Your task to perform on an android device: Open location settings Image 0: 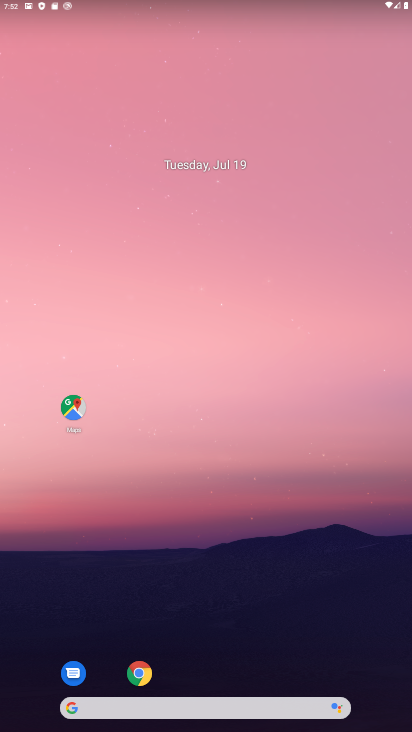
Step 0: click (214, 472)
Your task to perform on an android device: Open location settings Image 1: 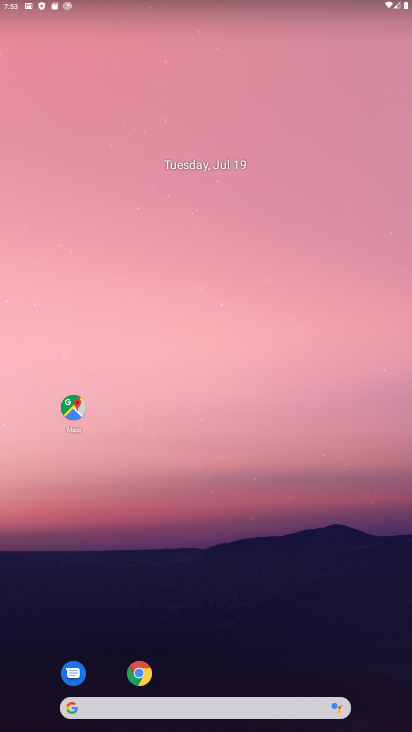
Step 1: drag from (283, 348) to (301, 255)
Your task to perform on an android device: Open location settings Image 2: 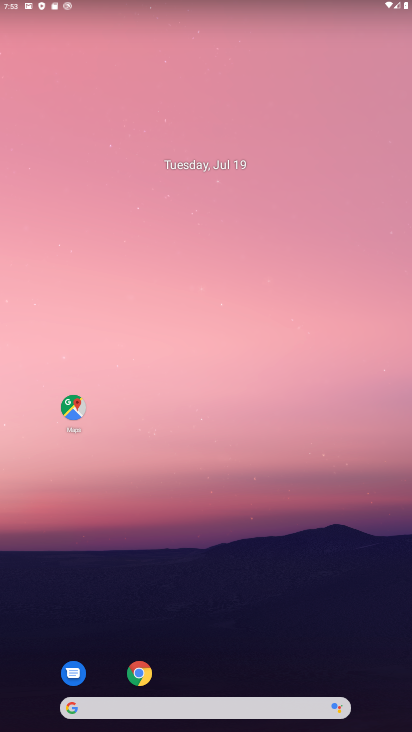
Step 2: drag from (183, 683) to (225, 113)
Your task to perform on an android device: Open location settings Image 3: 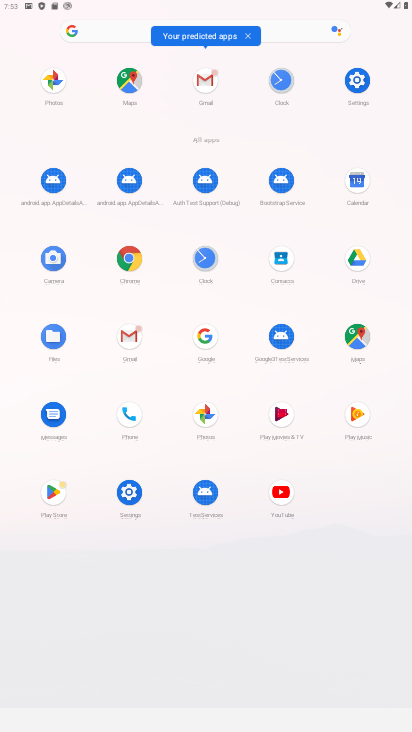
Step 3: click (135, 501)
Your task to perform on an android device: Open location settings Image 4: 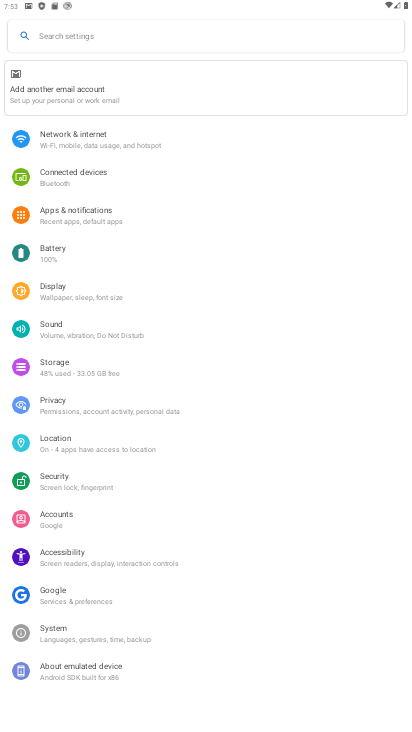
Step 4: click (70, 436)
Your task to perform on an android device: Open location settings Image 5: 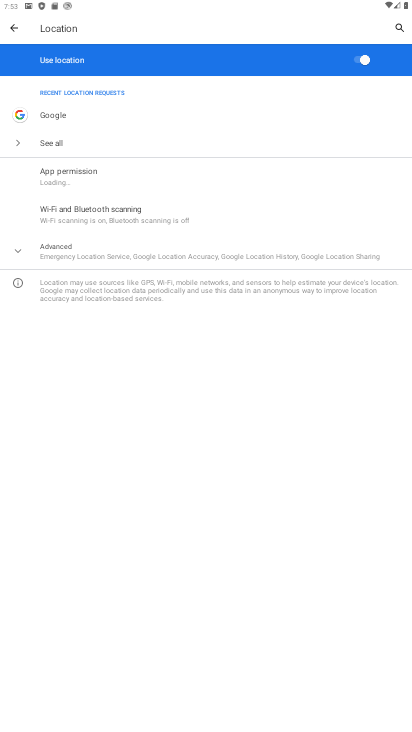
Step 5: click (127, 256)
Your task to perform on an android device: Open location settings Image 6: 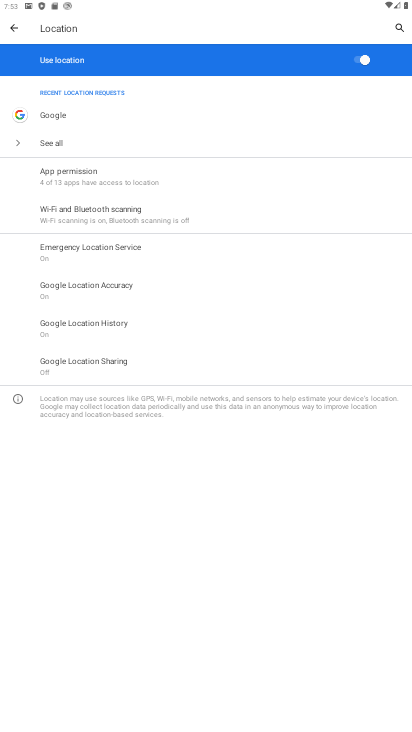
Step 6: task complete